Your task to perform on an android device: toggle improve location accuracy Image 0: 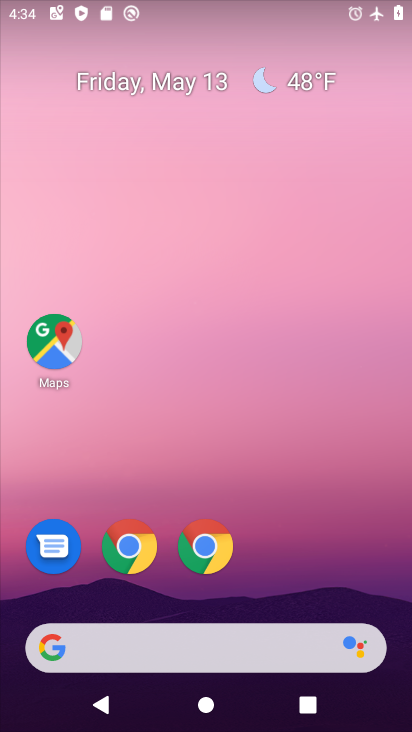
Step 0: drag from (329, 604) to (190, 138)
Your task to perform on an android device: toggle improve location accuracy Image 1: 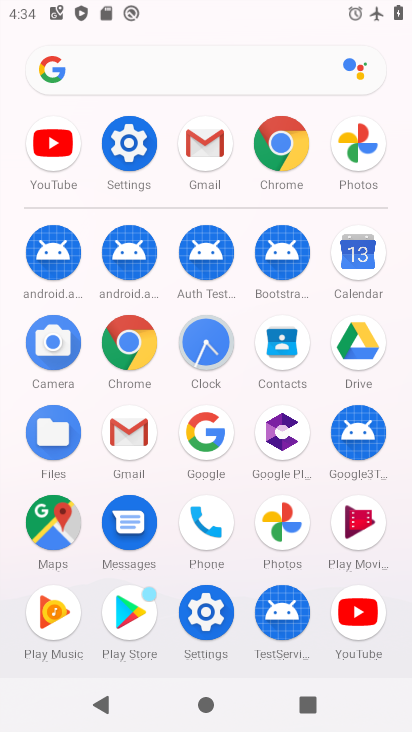
Step 1: click (115, 130)
Your task to perform on an android device: toggle improve location accuracy Image 2: 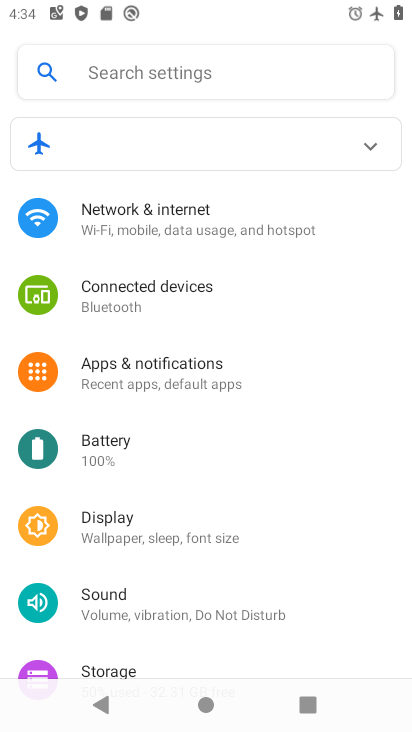
Step 2: drag from (173, 387) to (152, 239)
Your task to perform on an android device: toggle improve location accuracy Image 3: 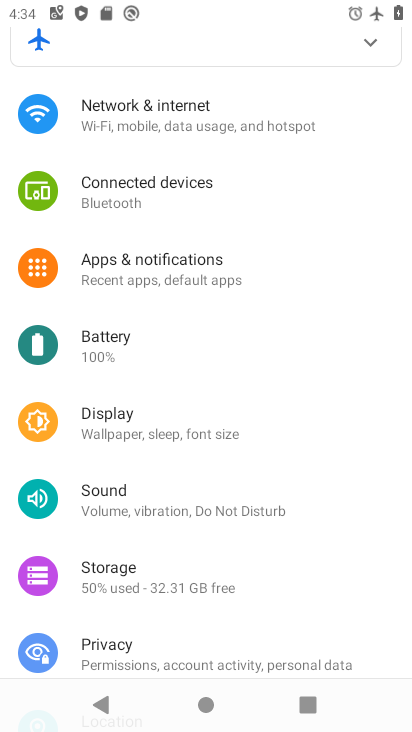
Step 3: drag from (191, 395) to (193, 55)
Your task to perform on an android device: toggle improve location accuracy Image 4: 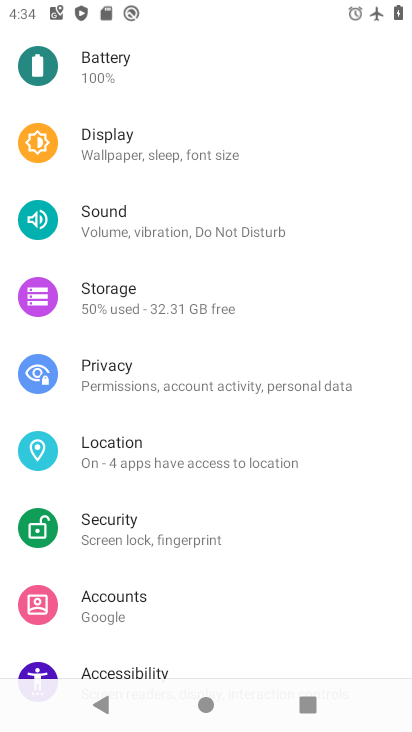
Step 4: click (128, 464)
Your task to perform on an android device: toggle improve location accuracy Image 5: 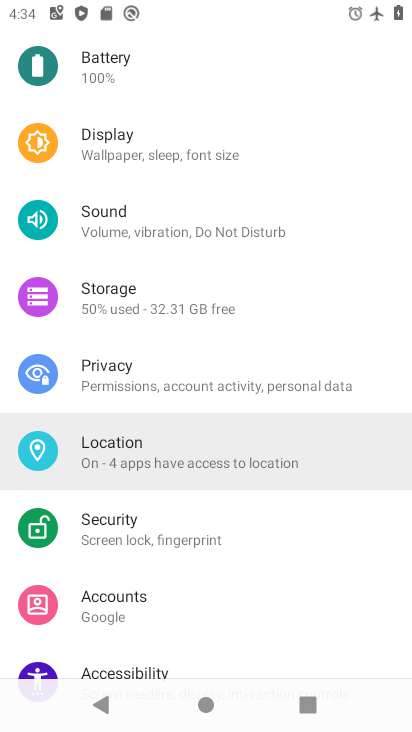
Step 5: click (123, 465)
Your task to perform on an android device: toggle improve location accuracy Image 6: 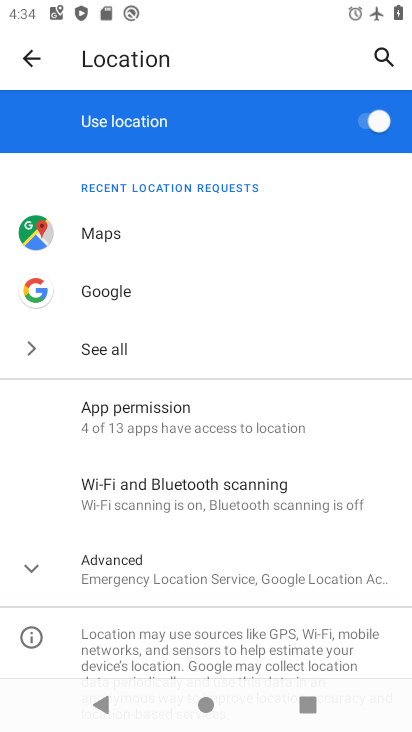
Step 6: click (123, 559)
Your task to perform on an android device: toggle improve location accuracy Image 7: 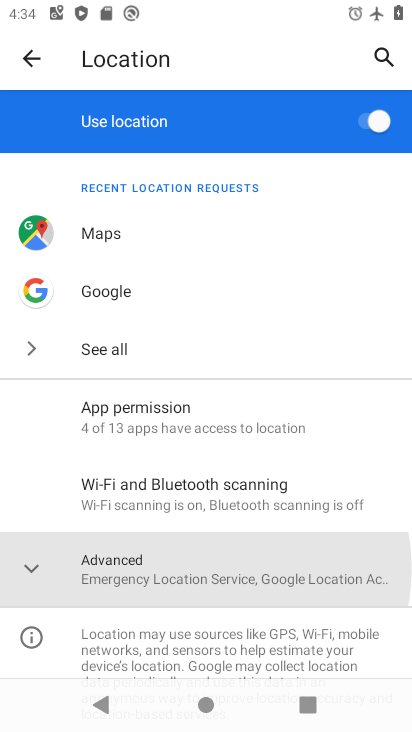
Step 7: click (125, 564)
Your task to perform on an android device: toggle improve location accuracy Image 8: 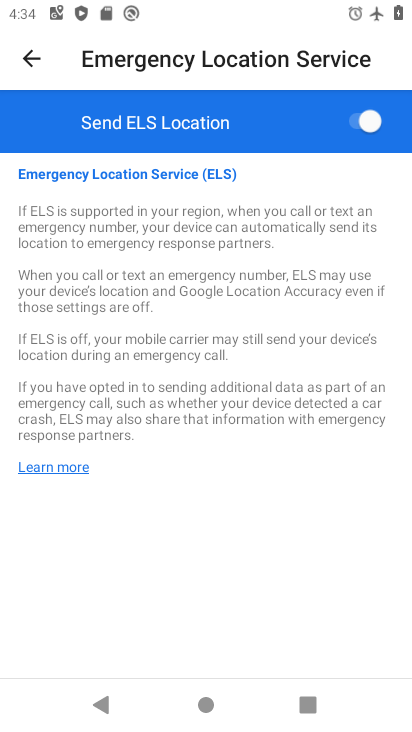
Step 8: click (23, 62)
Your task to perform on an android device: toggle improve location accuracy Image 9: 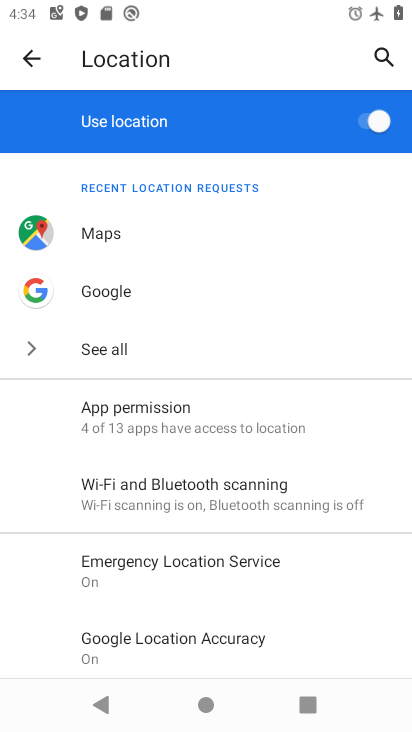
Step 9: click (116, 636)
Your task to perform on an android device: toggle improve location accuracy Image 10: 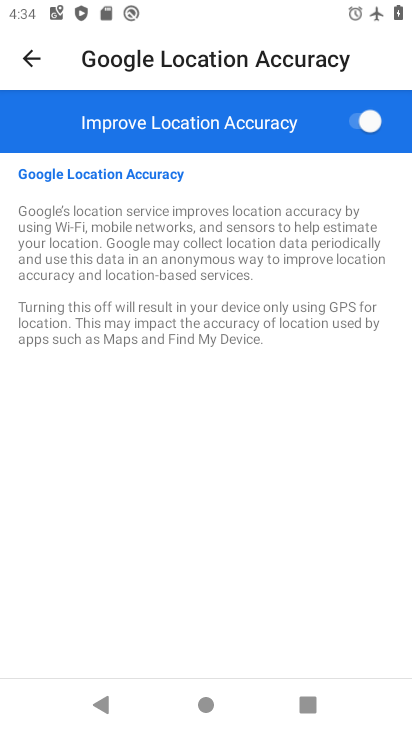
Step 10: click (375, 148)
Your task to perform on an android device: toggle improve location accuracy Image 11: 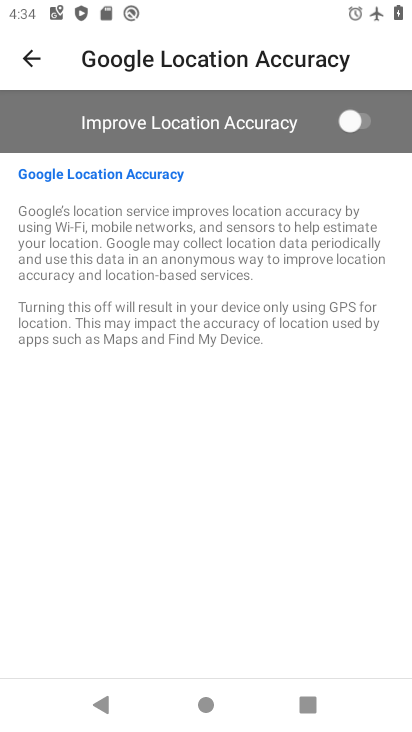
Step 11: task complete